Your task to perform on an android device: Go to calendar. Show me events next week Image 0: 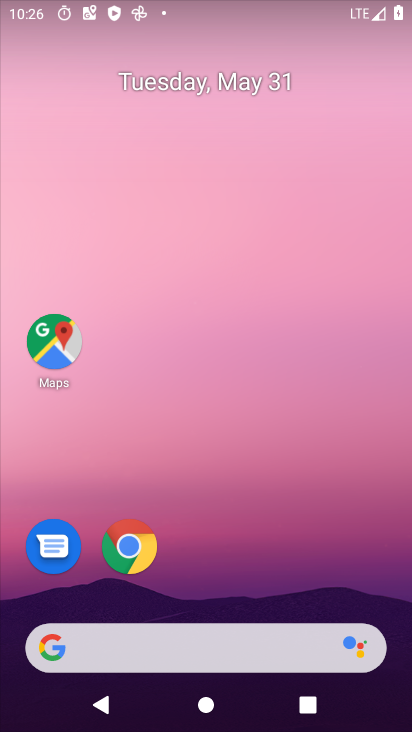
Step 0: drag from (206, 543) to (172, 205)
Your task to perform on an android device: Go to calendar. Show me events next week Image 1: 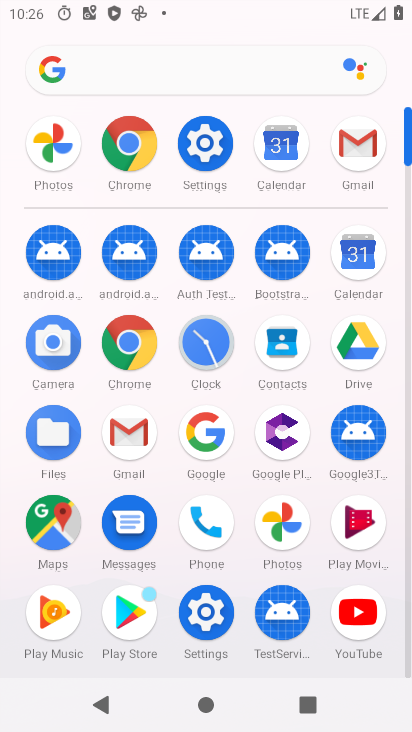
Step 1: click (292, 129)
Your task to perform on an android device: Go to calendar. Show me events next week Image 2: 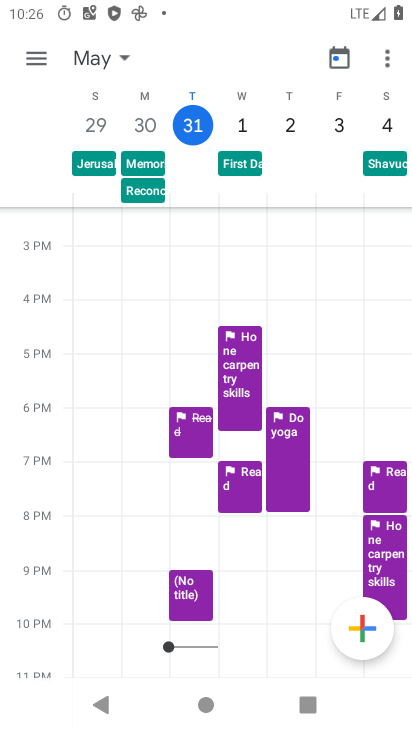
Step 2: task complete